Your task to perform on an android device: change alarm snooze length Image 0: 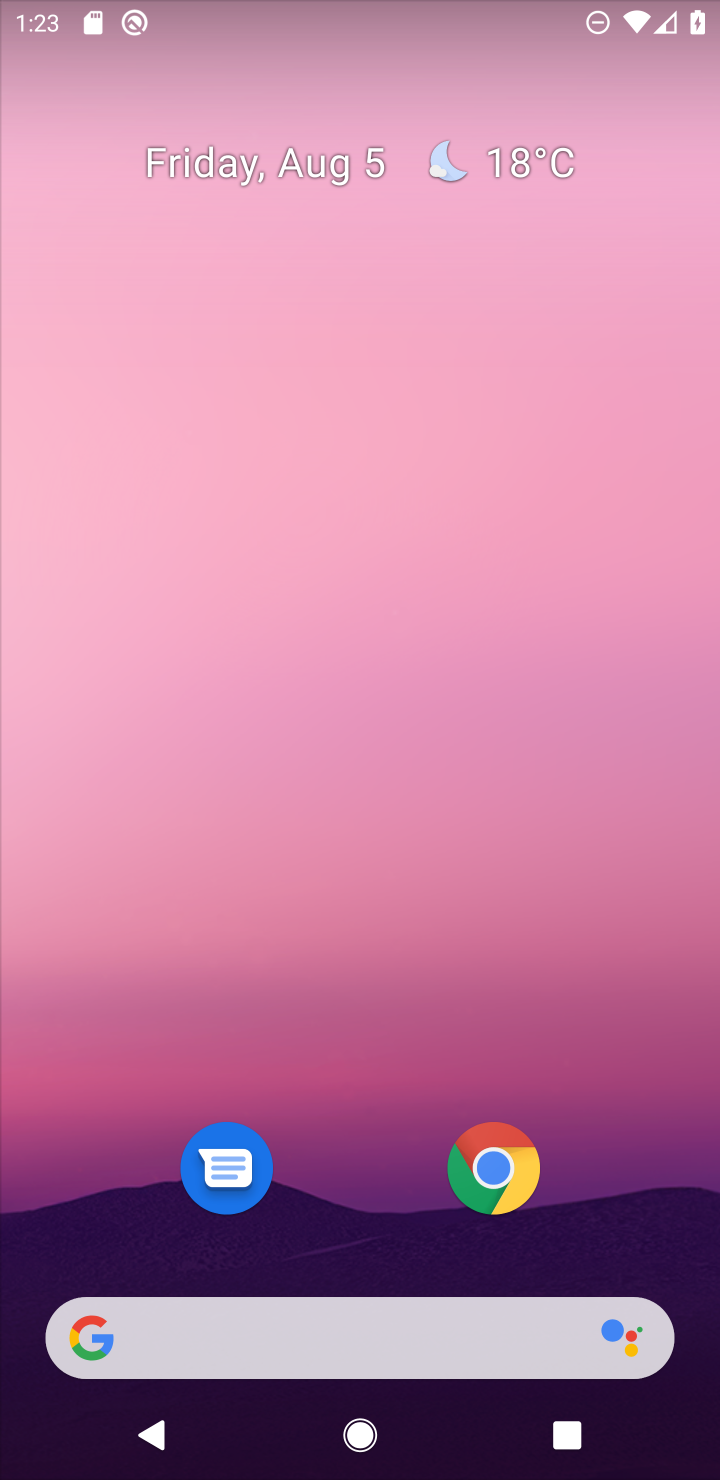
Step 0: drag from (306, 1238) to (443, 169)
Your task to perform on an android device: change alarm snooze length Image 1: 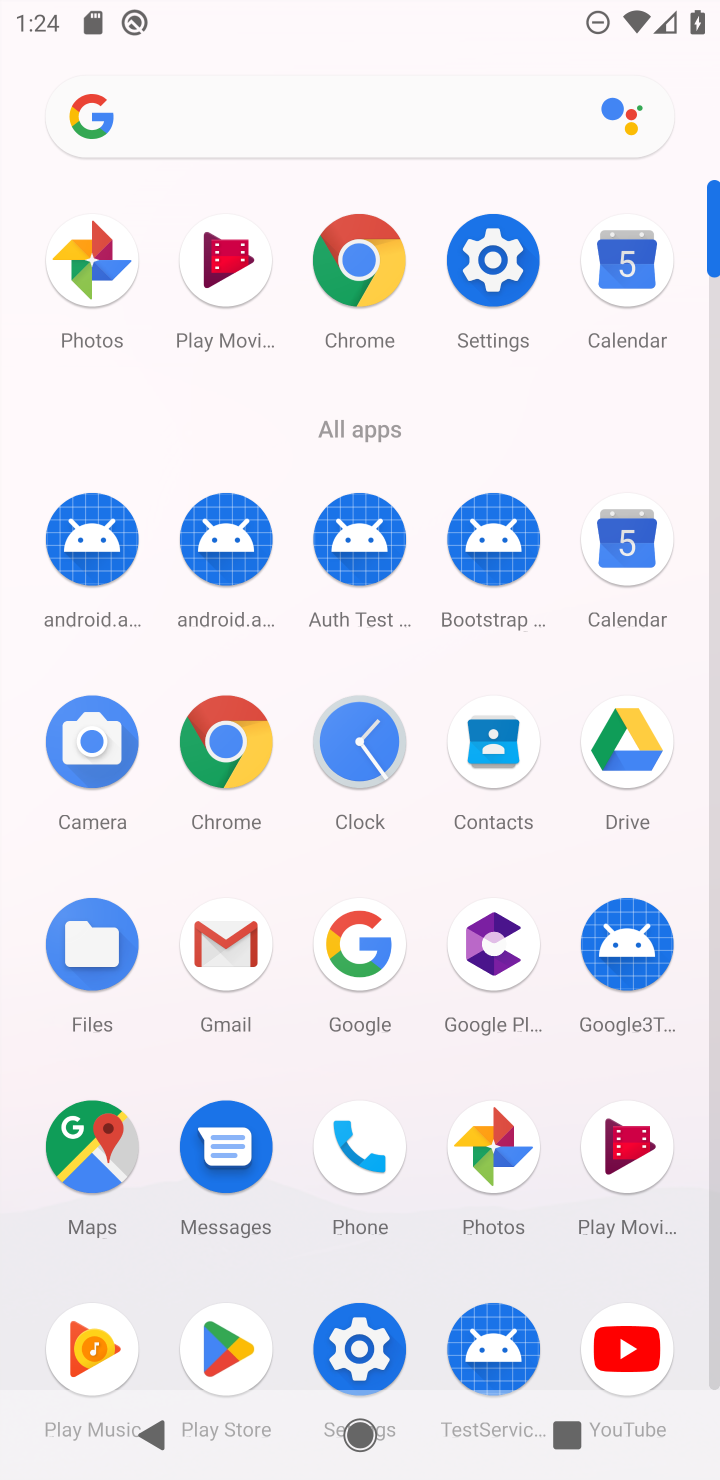
Step 1: click (363, 750)
Your task to perform on an android device: change alarm snooze length Image 2: 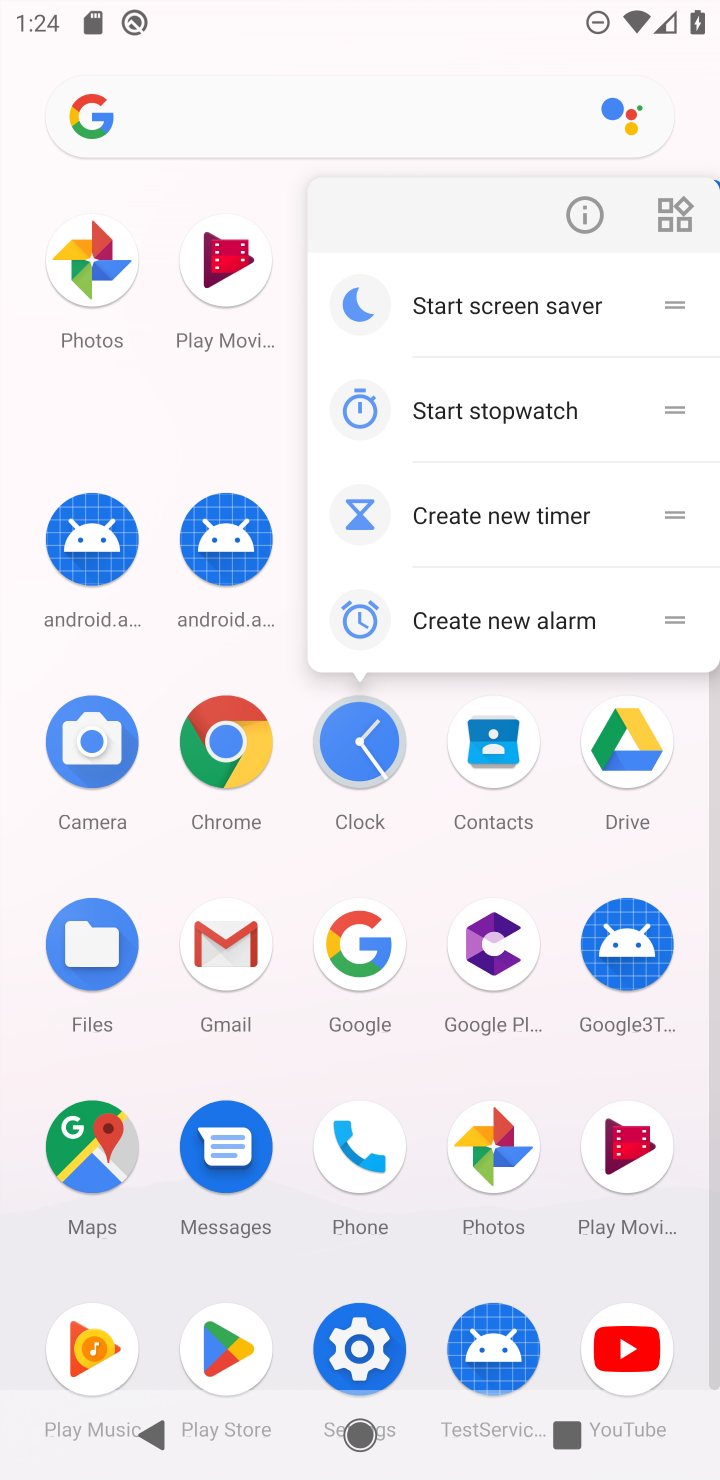
Step 2: click (363, 771)
Your task to perform on an android device: change alarm snooze length Image 3: 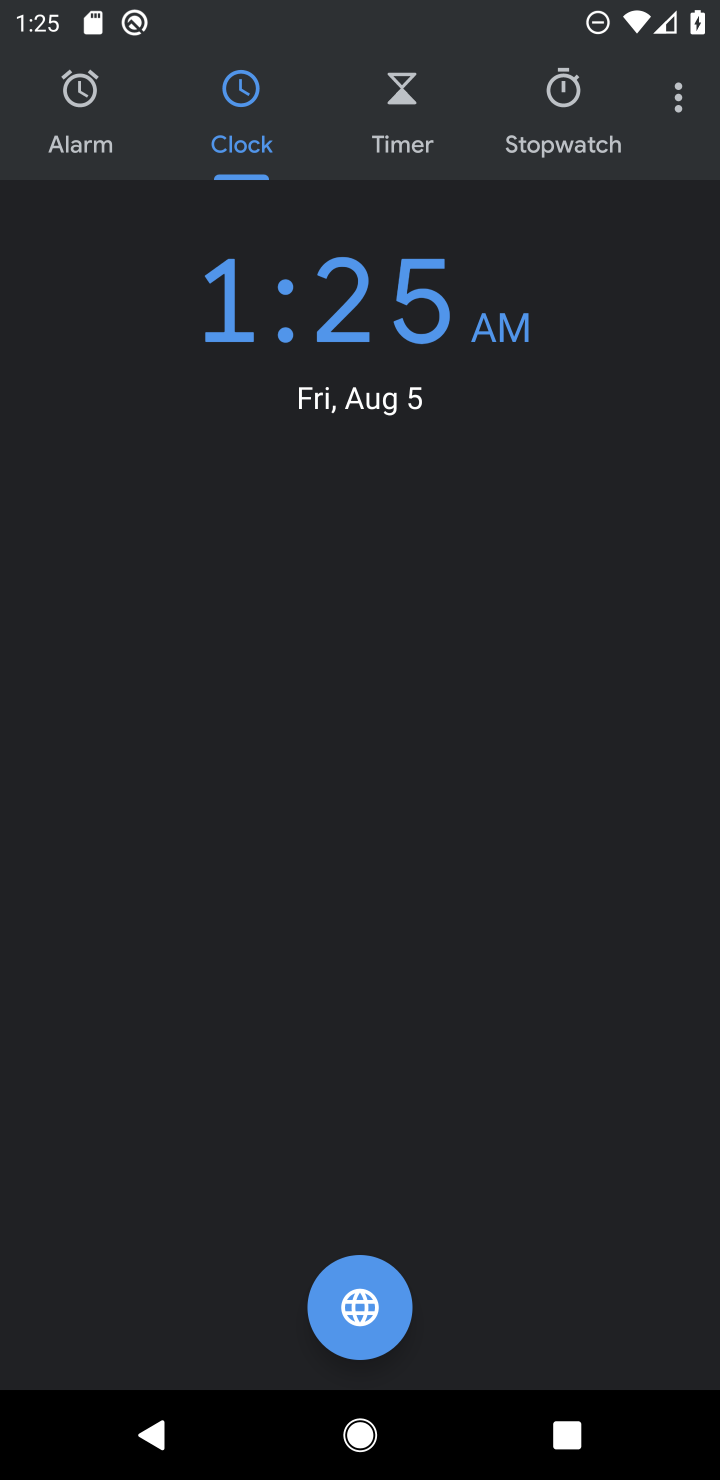
Step 3: click (676, 107)
Your task to perform on an android device: change alarm snooze length Image 4: 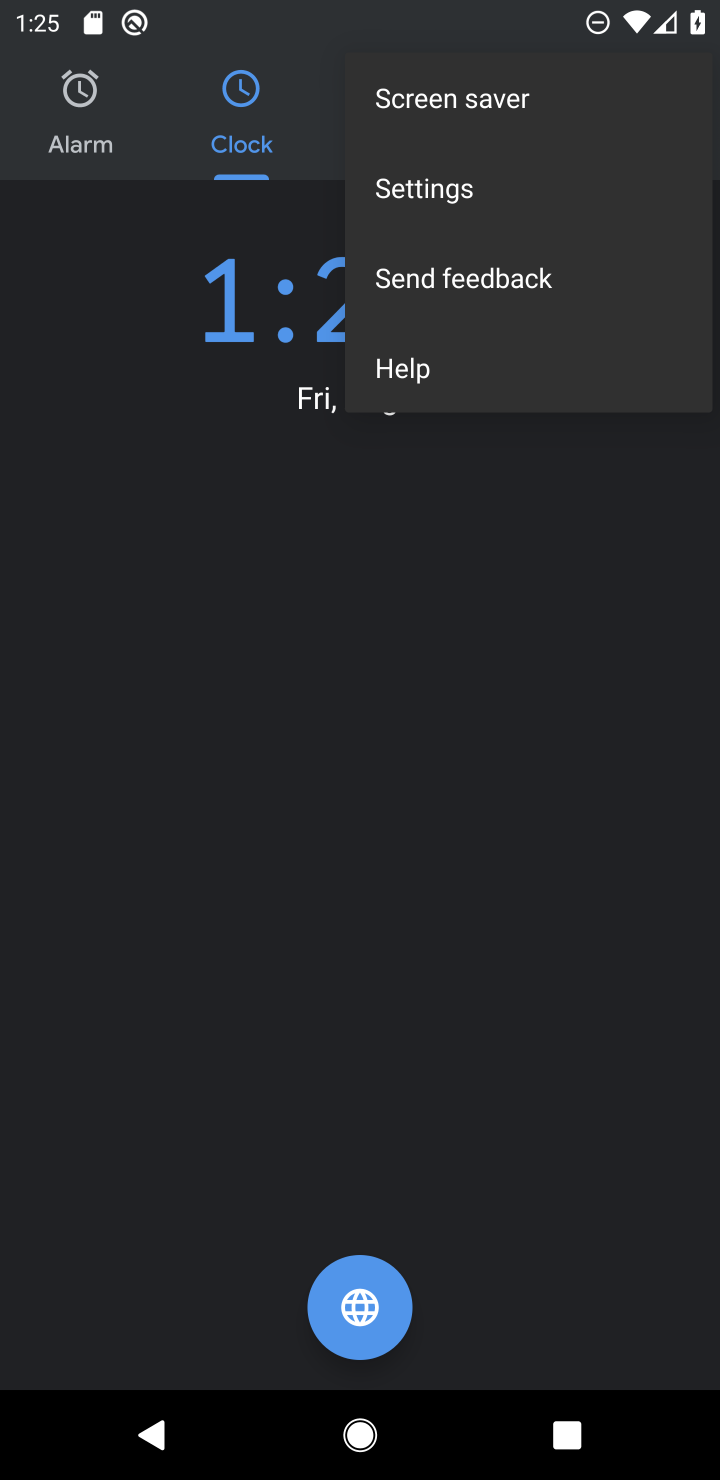
Step 4: click (475, 203)
Your task to perform on an android device: change alarm snooze length Image 5: 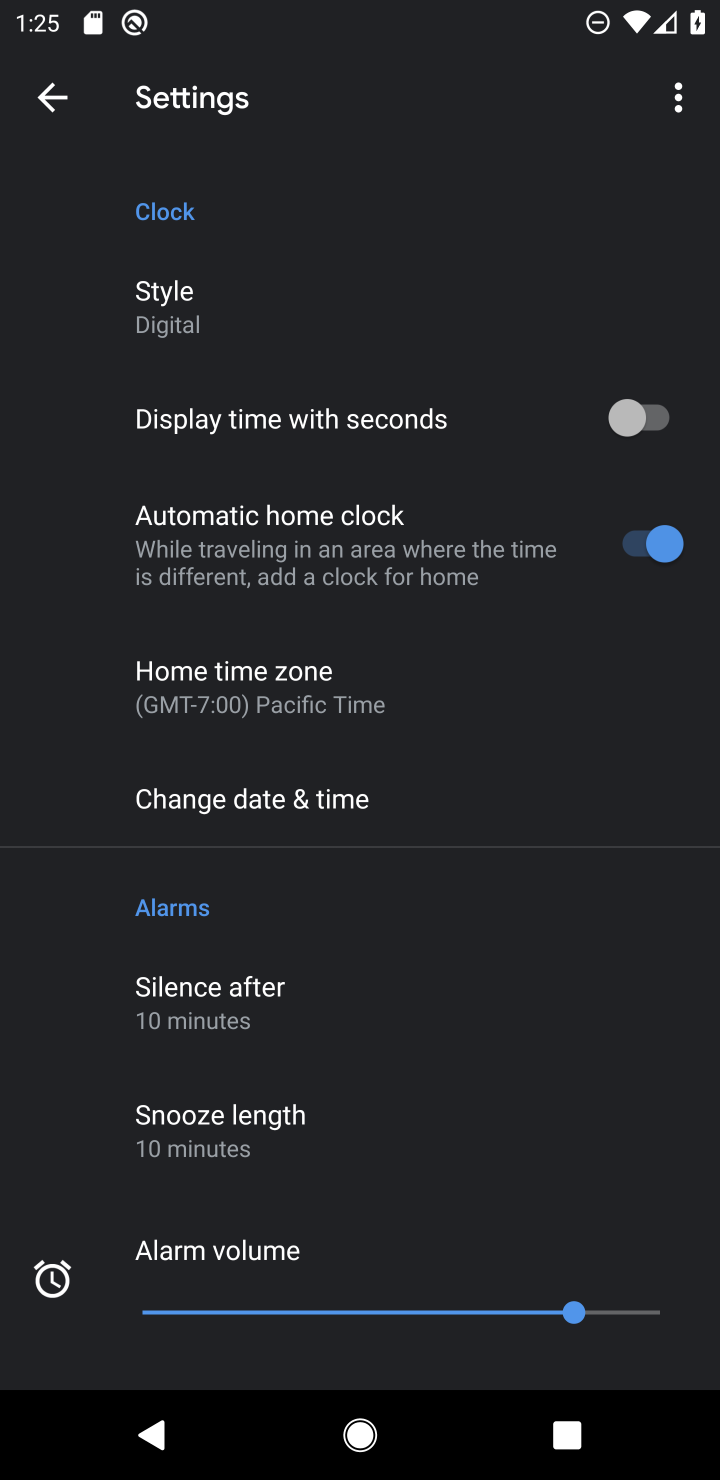
Step 5: click (217, 1120)
Your task to perform on an android device: change alarm snooze length Image 6: 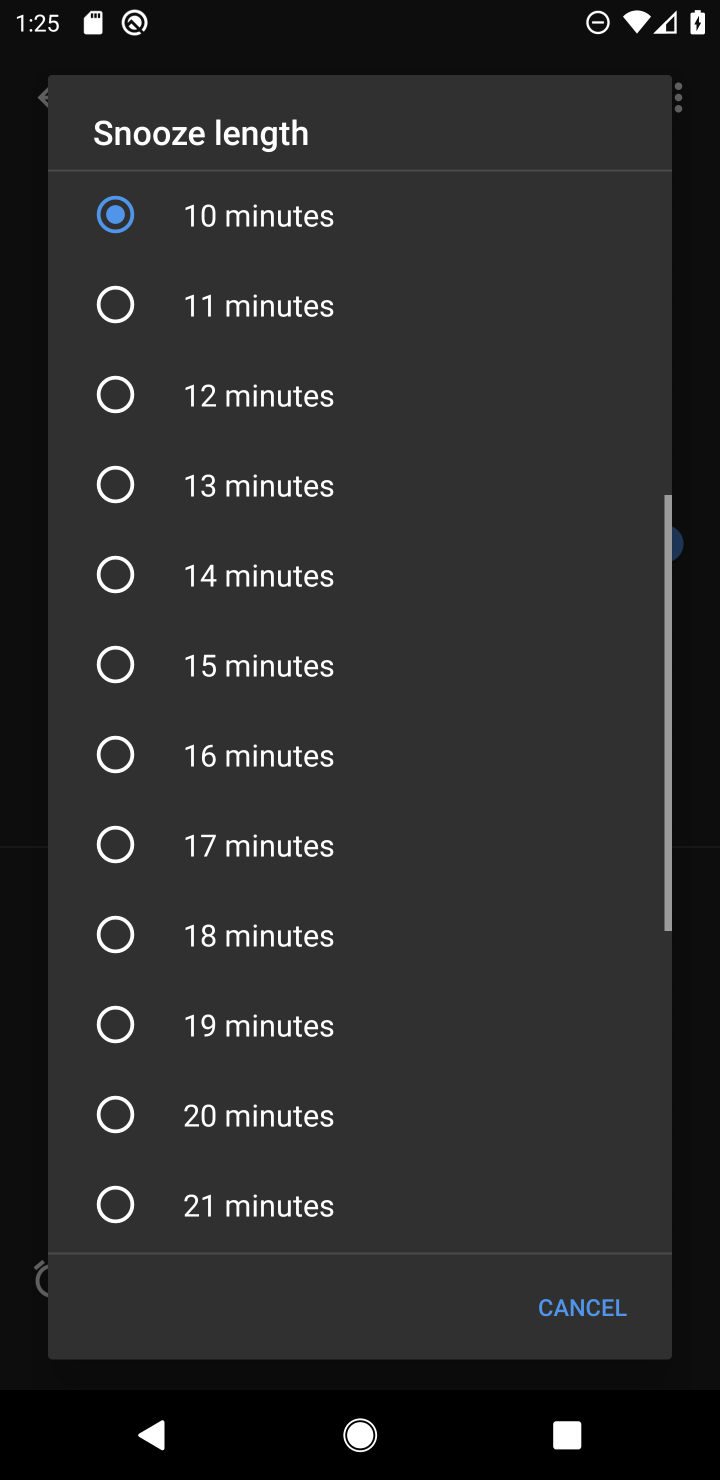
Step 6: click (153, 389)
Your task to perform on an android device: change alarm snooze length Image 7: 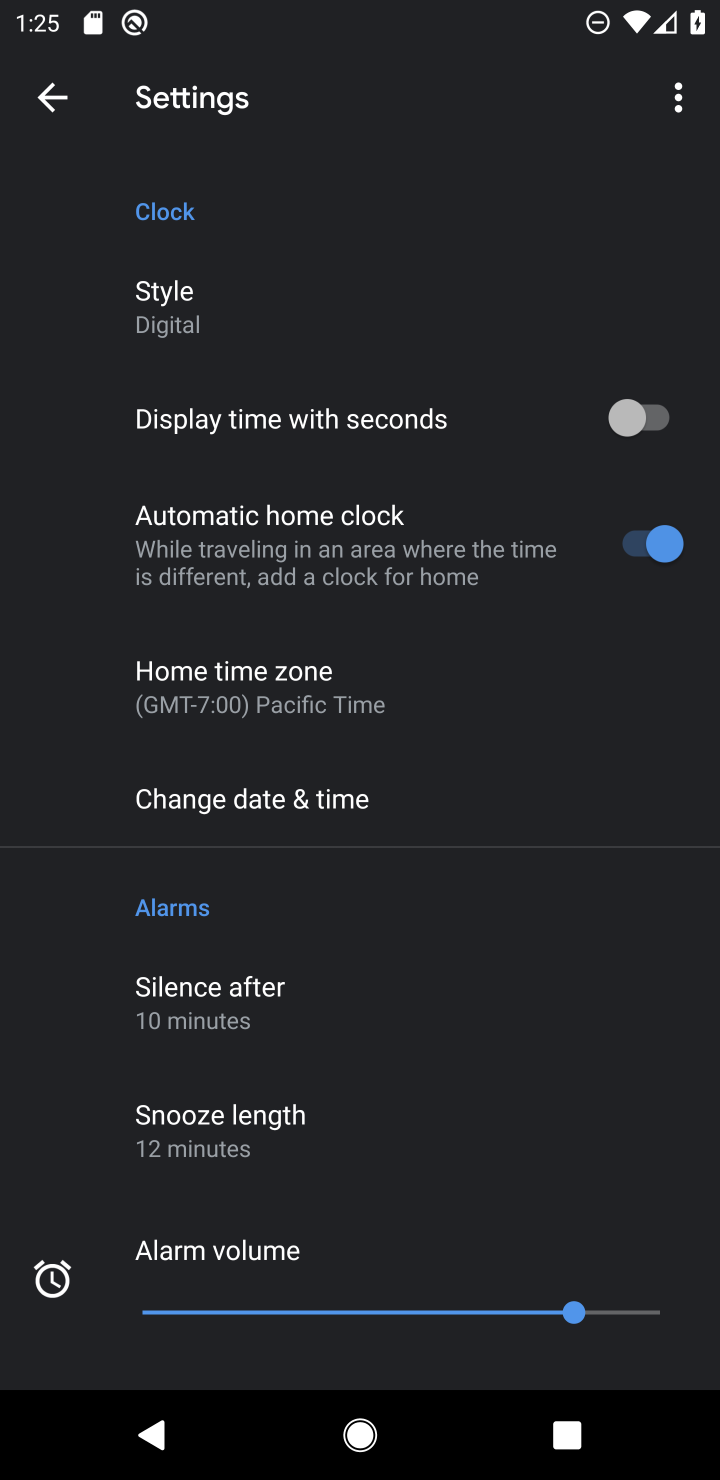
Step 7: task complete